Your task to perform on an android device: Search for sushi restaurants on Maps Image 0: 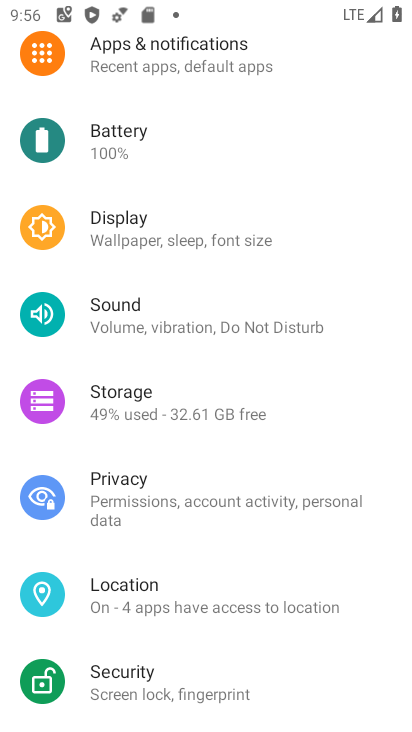
Step 0: press home button
Your task to perform on an android device: Search for sushi restaurants on Maps Image 1: 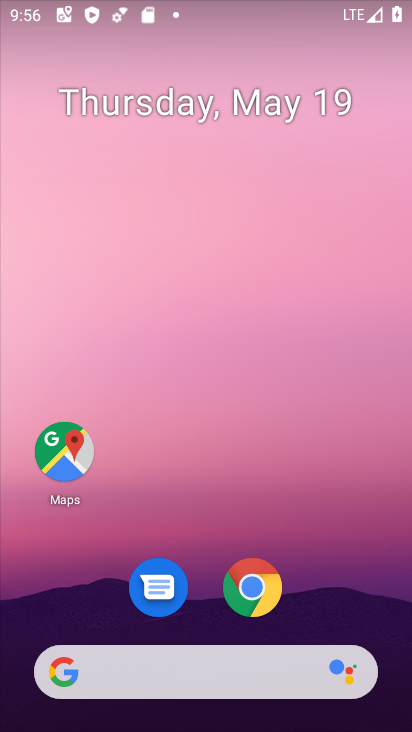
Step 1: click (85, 450)
Your task to perform on an android device: Search for sushi restaurants on Maps Image 2: 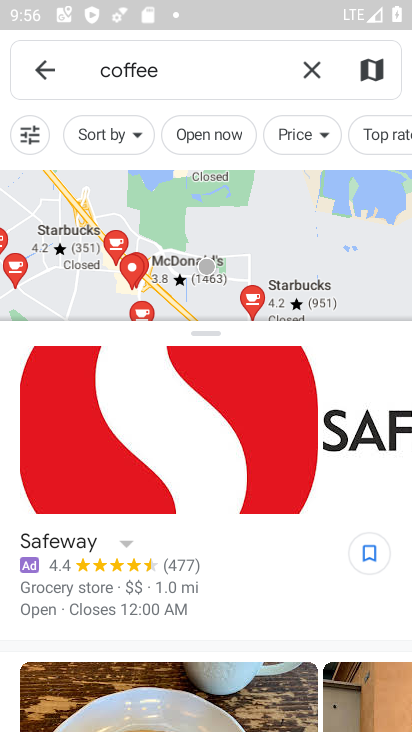
Step 2: click (321, 79)
Your task to perform on an android device: Search for sushi restaurants on Maps Image 3: 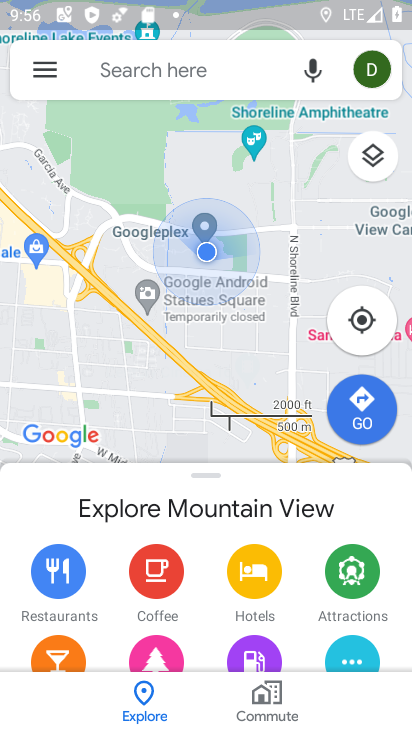
Step 3: click (199, 69)
Your task to perform on an android device: Search for sushi restaurants on Maps Image 4: 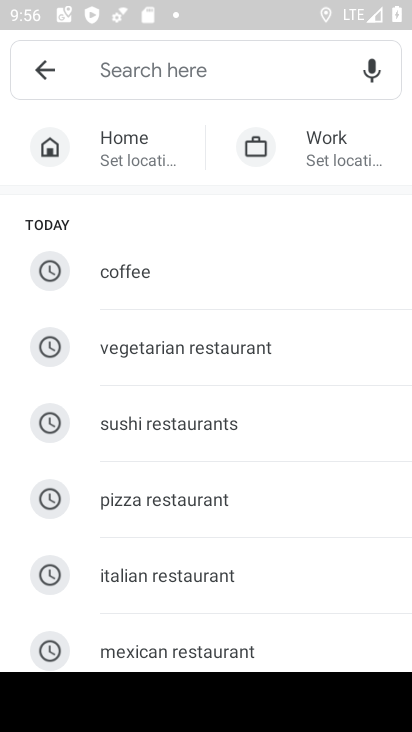
Step 4: click (172, 417)
Your task to perform on an android device: Search for sushi restaurants on Maps Image 5: 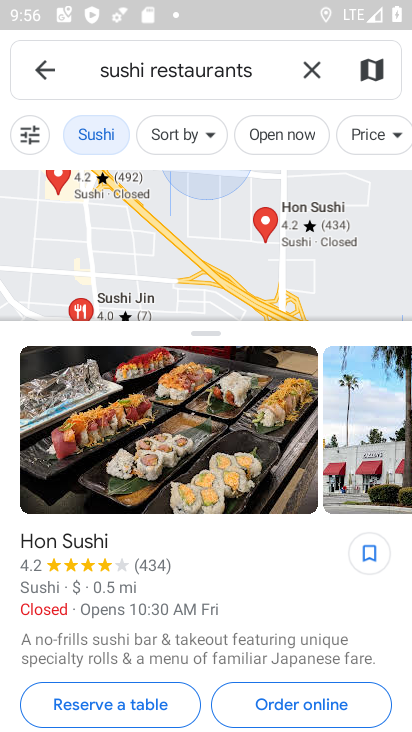
Step 5: task complete